Your task to perform on an android device: stop showing notifications on the lock screen Image 0: 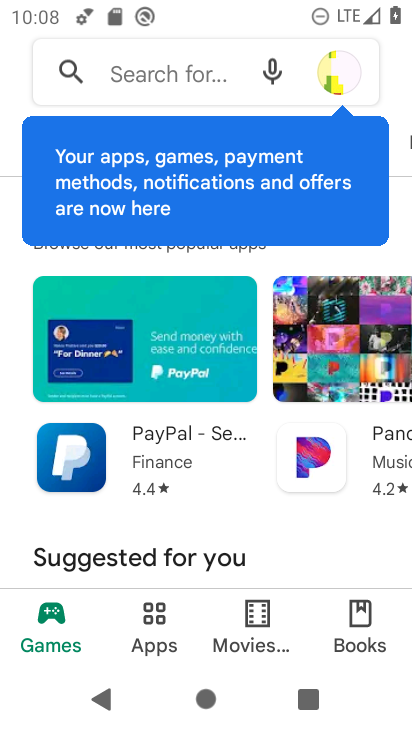
Step 0: press home button
Your task to perform on an android device: stop showing notifications on the lock screen Image 1: 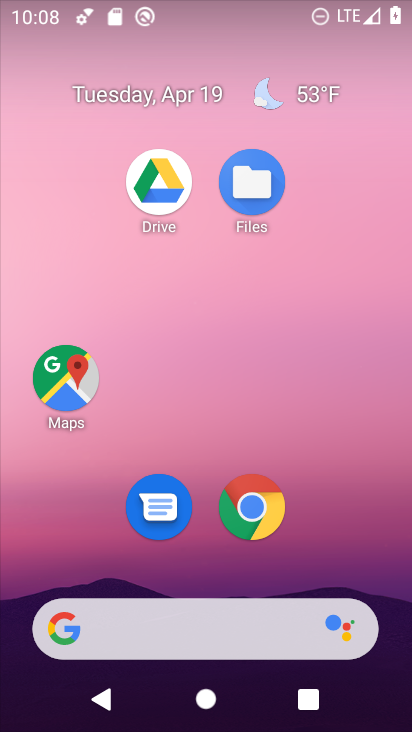
Step 1: drag from (320, 262) to (327, 150)
Your task to perform on an android device: stop showing notifications on the lock screen Image 2: 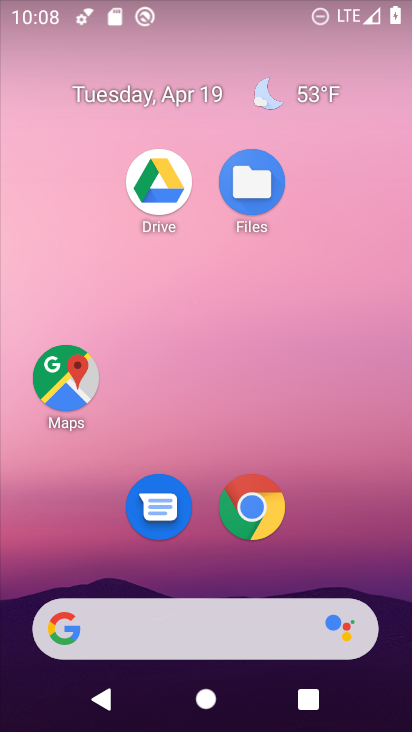
Step 2: drag from (324, 435) to (380, 114)
Your task to perform on an android device: stop showing notifications on the lock screen Image 3: 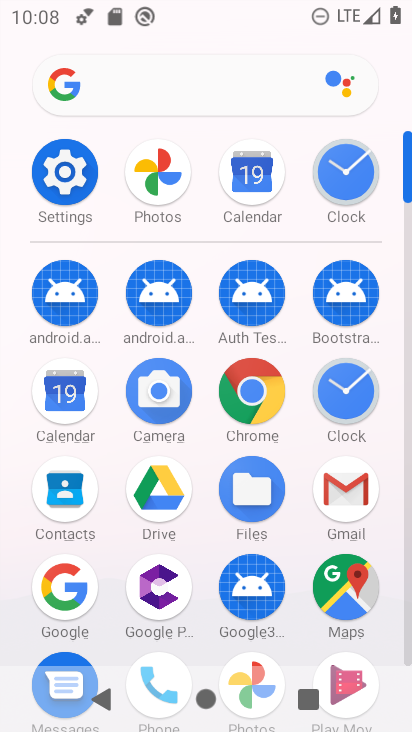
Step 3: click (88, 186)
Your task to perform on an android device: stop showing notifications on the lock screen Image 4: 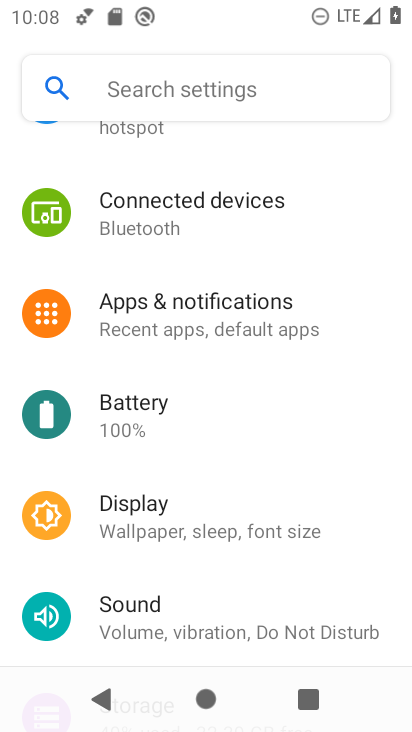
Step 4: click (228, 319)
Your task to perform on an android device: stop showing notifications on the lock screen Image 5: 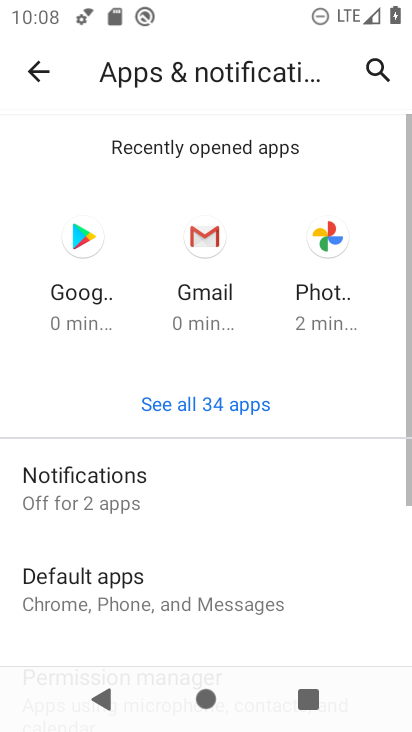
Step 5: click (175, 490)
Your task to perform on an android device: stop showing notifications on the lock screen Image 6: 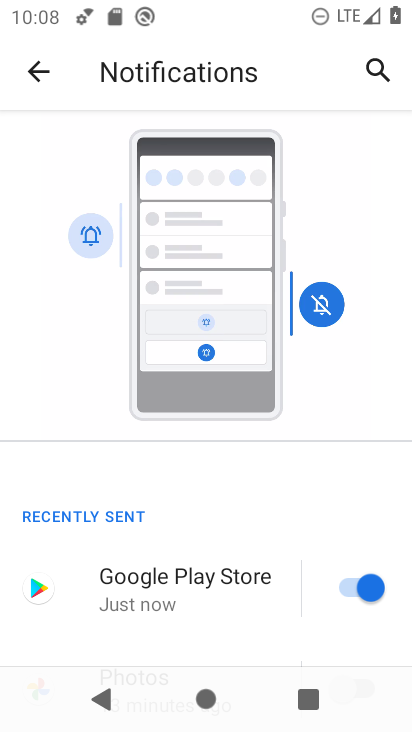
Step 6: task complete